Your task to perform on an android device: toggle sleep mode Image 0: 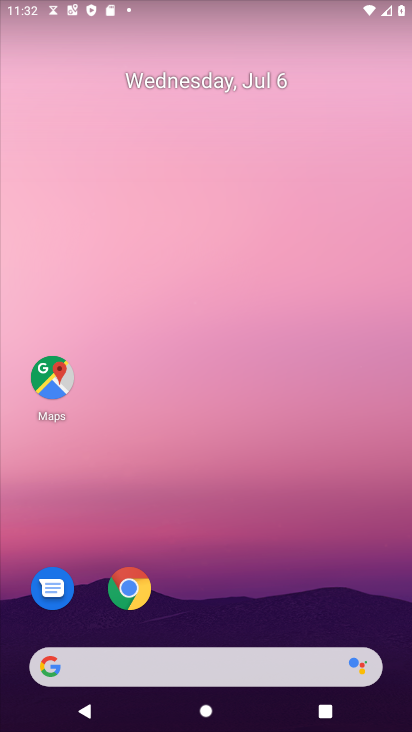
Step 0: drag from (219, 611) to (224, 344)
Your task to perform on an android device: toggle sleep mode Image 1: 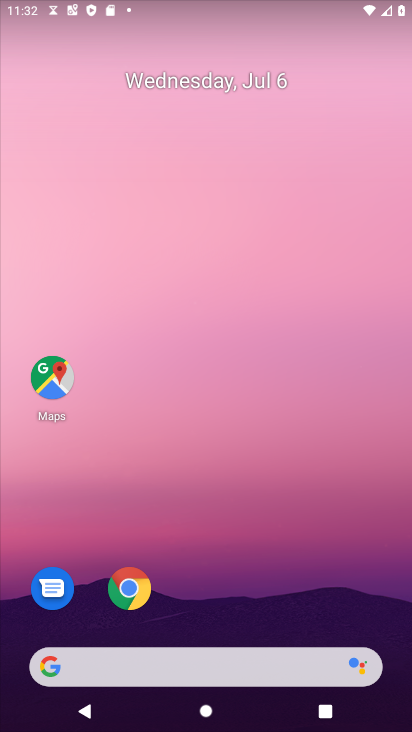
Step 1: drag from (212, 625) to (269, 198)
Your task to perform on an android device: toggle sleep mode Image 2: 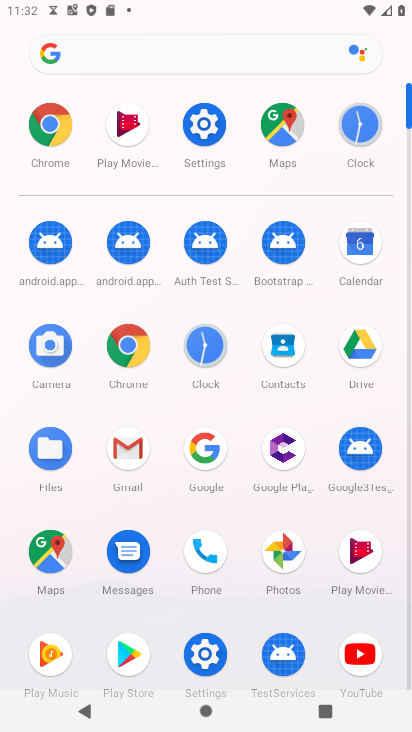
Step 2: click (194, 118)
Your task to perform on an android device: toggle sleep mode Image 3: 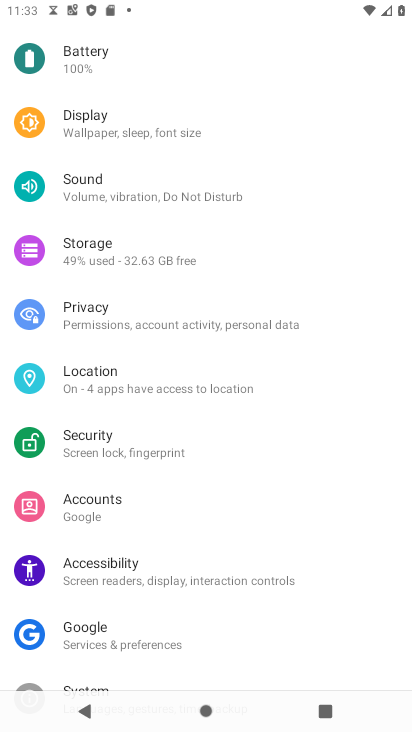
Step 3: task complete